Your task to perform on an android device: Open Youtube and go to the subscriptions tab Image 0: 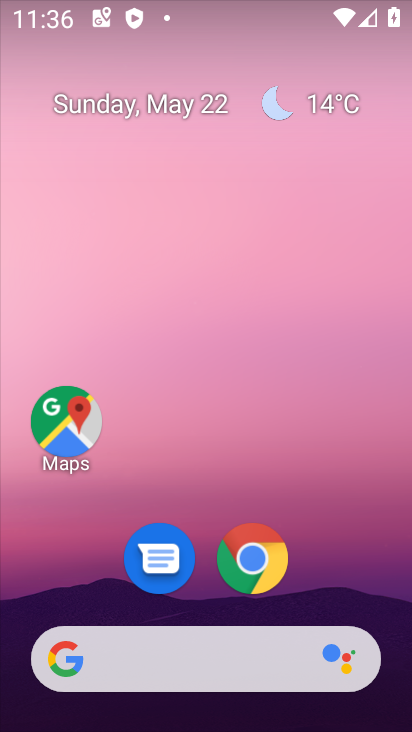
Step 0: drag from (342, 596) to (387, 11)
Your task to perform on an android device: Open Youtube and go to the subscriptions tab Image 1: 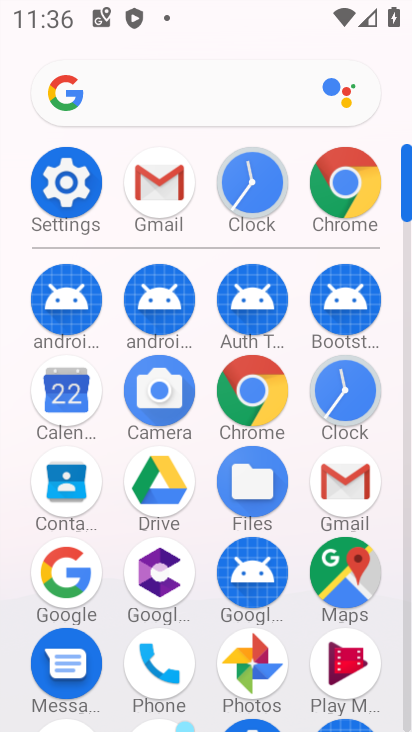
Step 1: drag from (406, 619) to (406, 584)
Your task to perform on an android device: Open Youtube and go to the subscriptions tab Image 2: 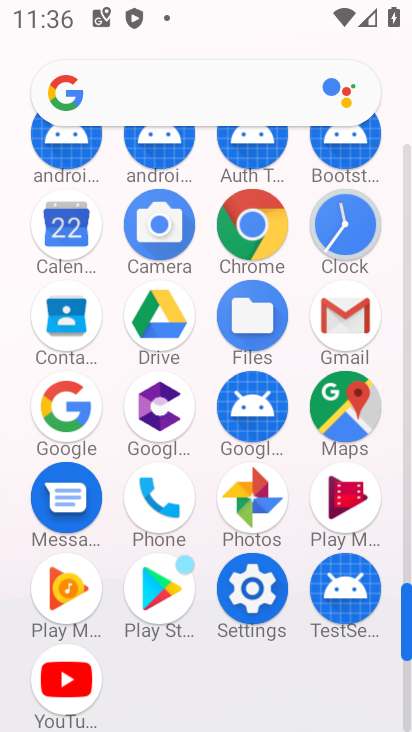
Step 2: click (73, 681)
Your task to perform on an android device: Open Youtube and go to the subscriptions tab Image 3: 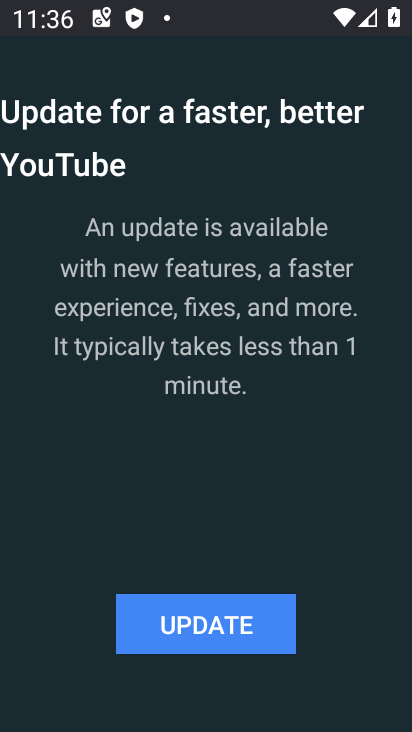
Step 3: click (206, 635)
Your task to perform on an android device: Open Youtube and go to the subscriptions tab Image 4: 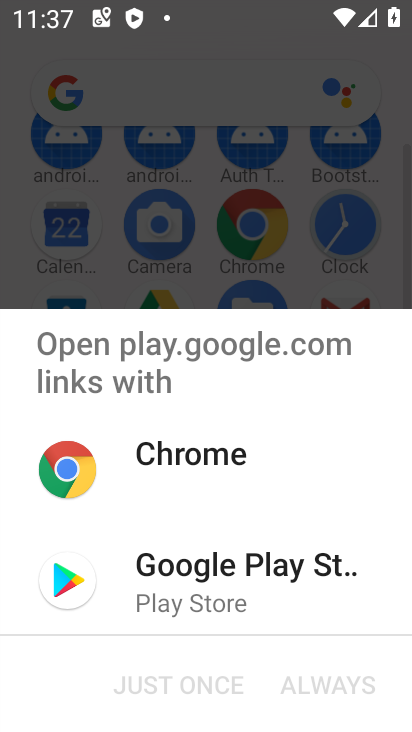
Step 4: click (175, 594)
Your task to perform on an android device: Open Youtube and go to the subscriptions tab Image 5: 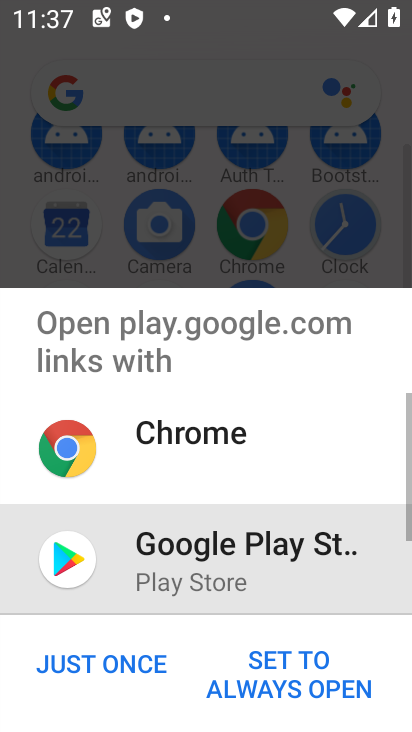
Step 5: click (119, 660)
Your task to perform on an android device: Open Youtube and go to the subscriptions tab Image 6: 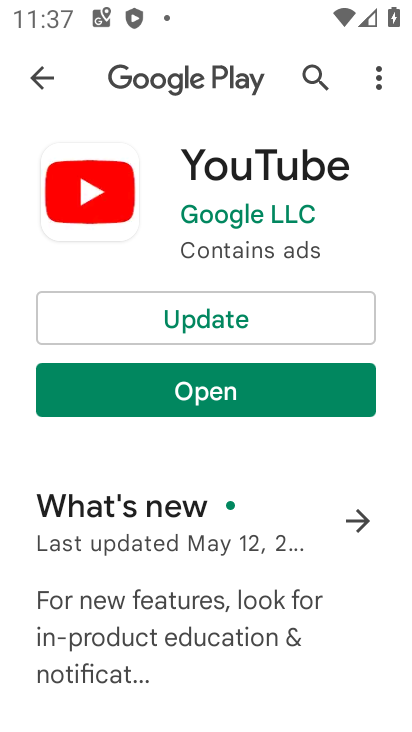
Step 6: click (207, 331)
Your task to perform on an android device: Open Youtube and go to the subscriptions tab Image 7: 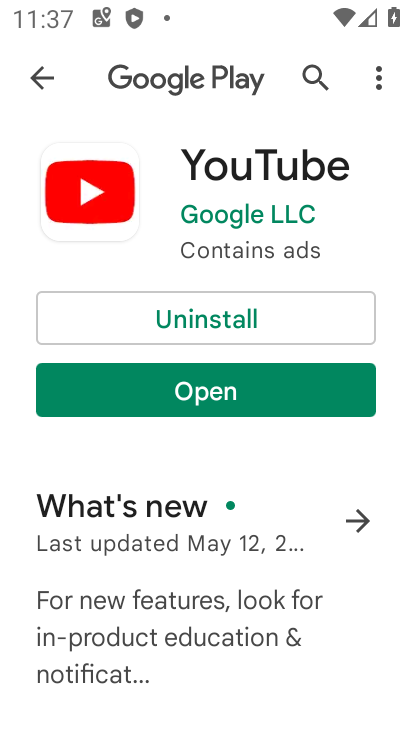
Step 7: click (212, 392)
Your task to perform on an android device: Open Youtube and go to the subscriptions tab Image 8: 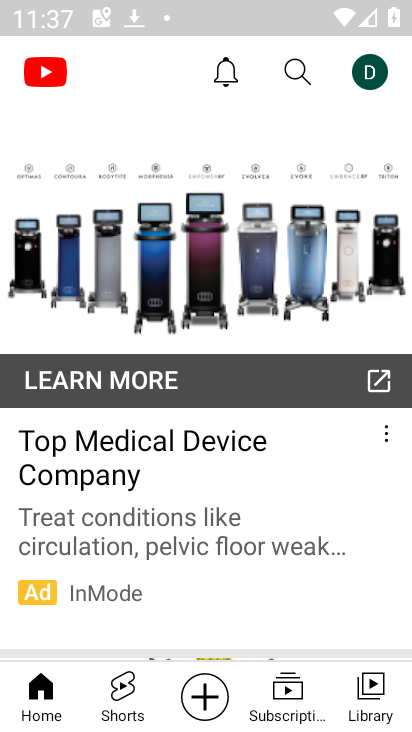
Step 8: click (290, 711)
Your task to perform on an android device: Open Youtube and go to the subscriptions tab Image 9: 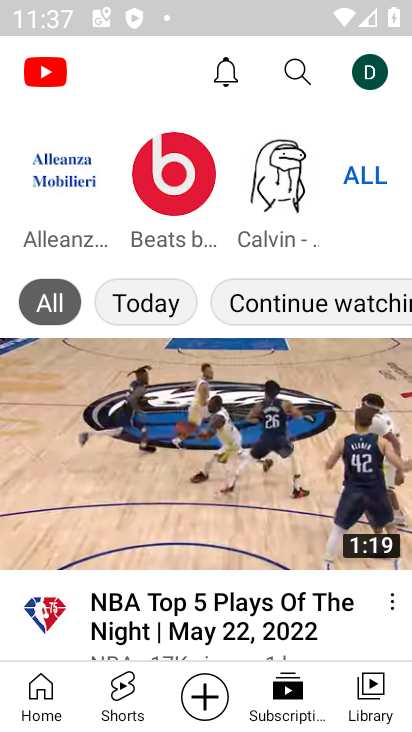
Step 9: task complete